Your task to perform on an android device: turn pop-ups off in chrome Image 0: 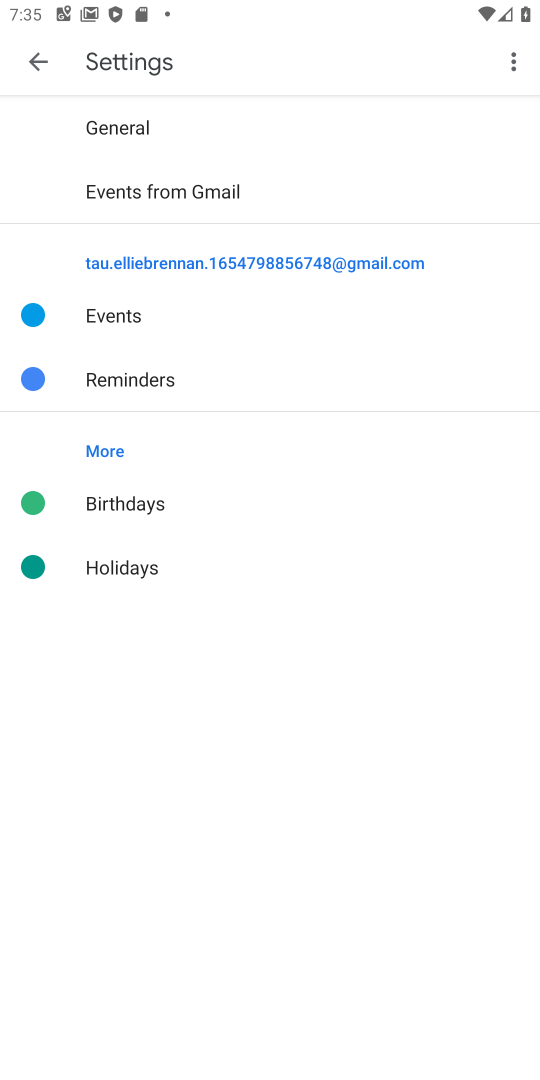
Step 0: press home button
Your task to perform on an android device: turn pop-ups off in chrome Image 1: 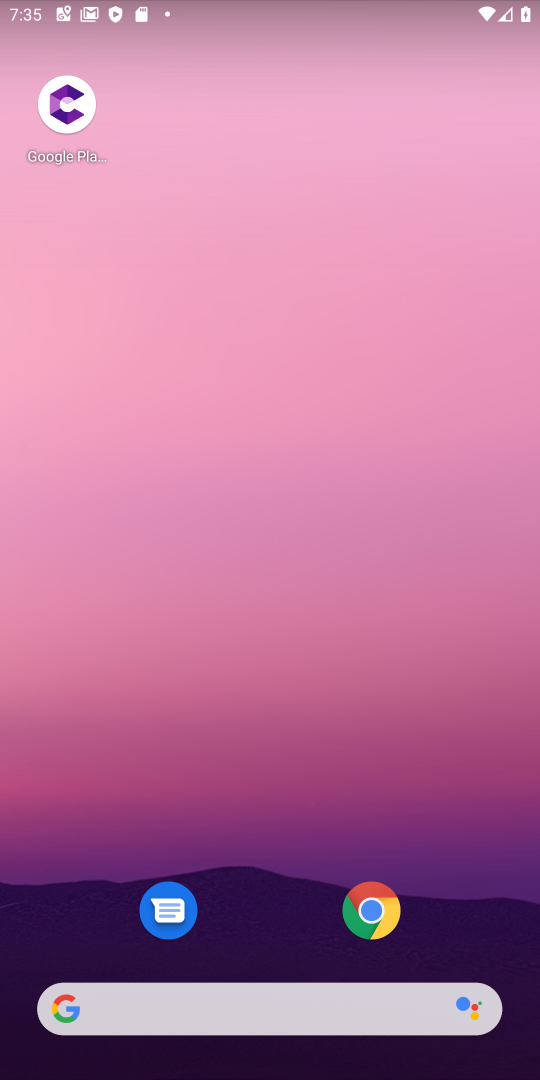
Step 1: drag from (471, 864) to (423, 99)
Your task to perform on an android device: turn pop-ups off in chrome Image 2: 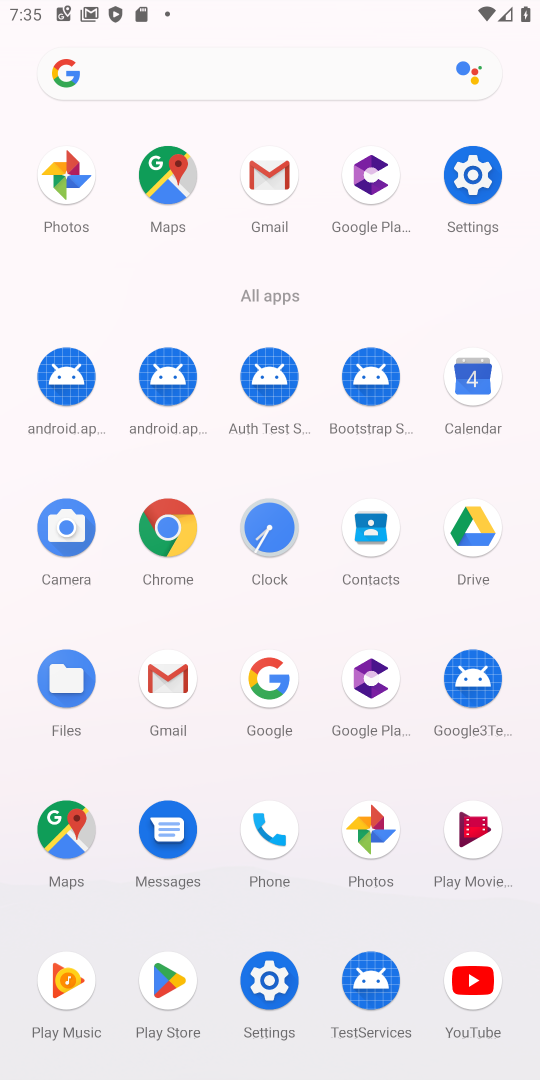
Step 2: click (164, 533)
Your task to perform on an android device: turn pop-ups off in chrome Image 3: 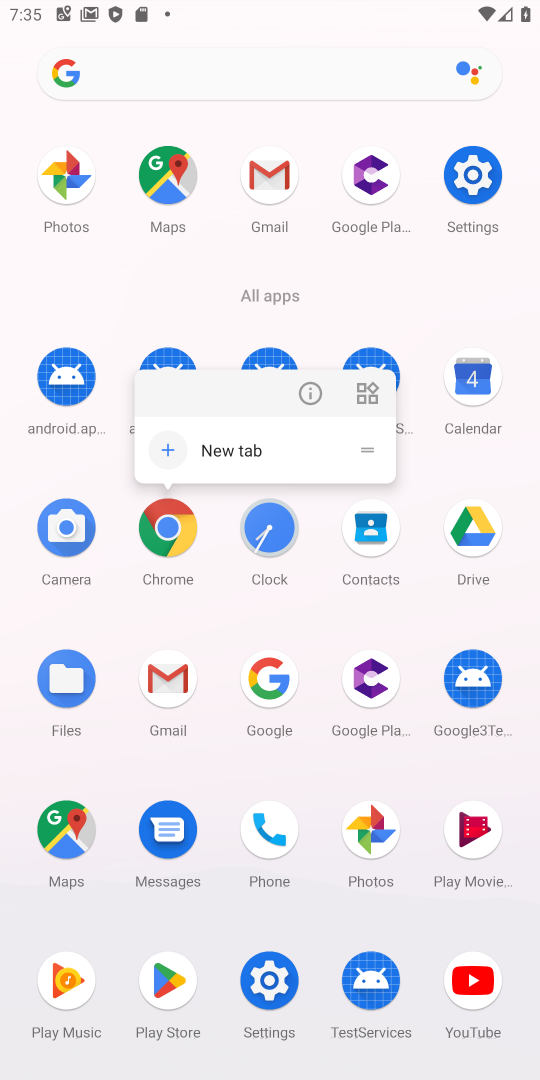
Step 3: click (166, 525)
Your task to perform on an android device: turn pop-ups off in chrome Image 4: 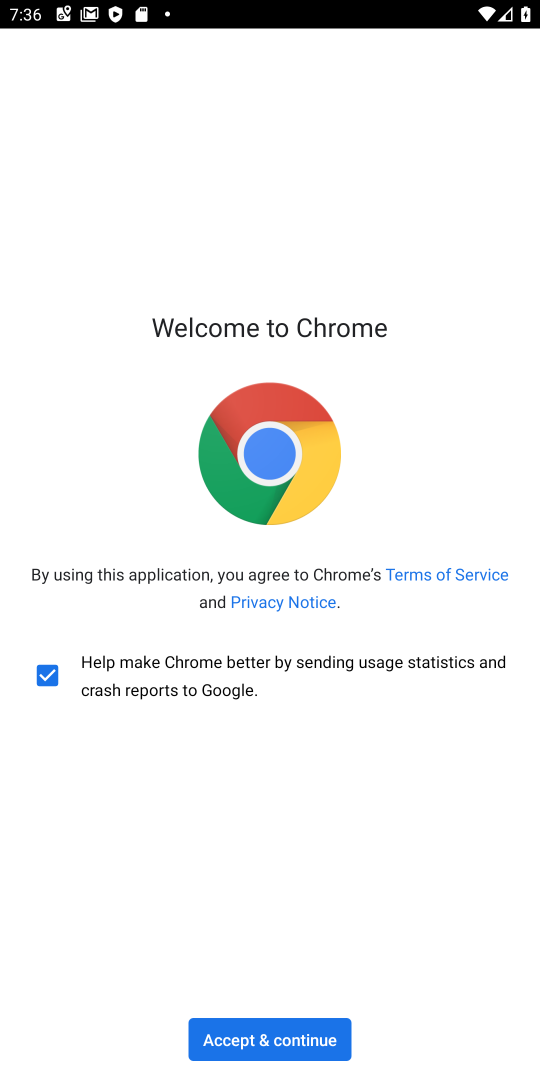
Step 4: click (290, 992)
Your task to perform on an android device: turn pop-ups off in chrome Image 5: 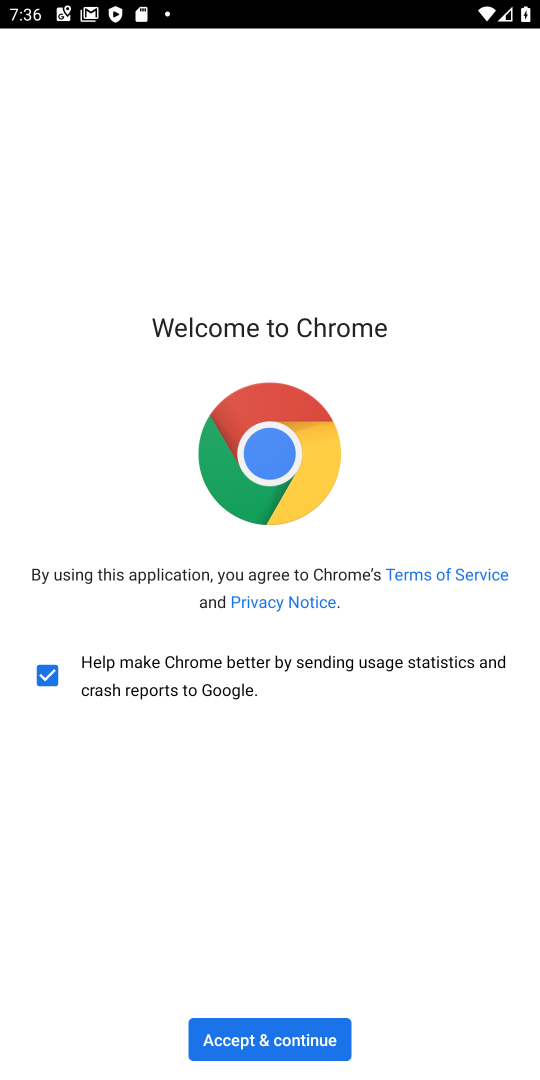
Step 5: click (310, 1026)
Your task to perform on an android device: turn pop-ups off in chrome Image 6: 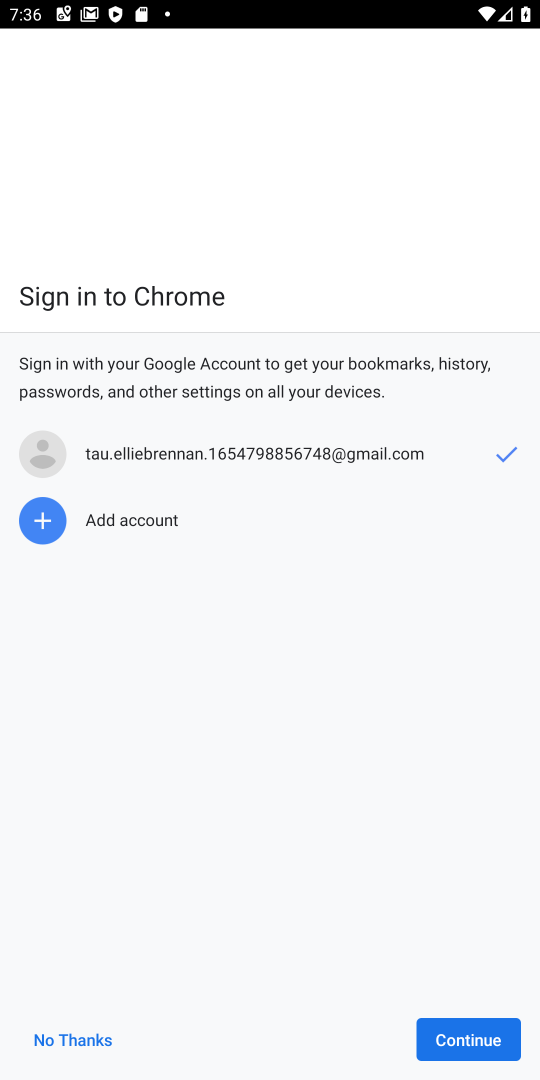
Step 6: click (476, 1029)
Your task to perform on an android device: turn pop-ups off in chrome Image 7: 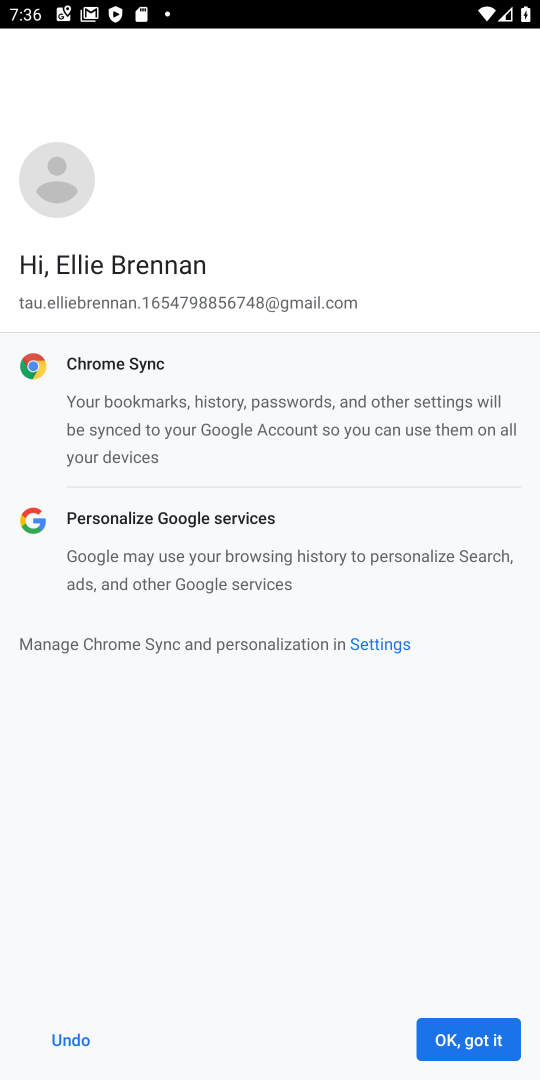
Step 7: click (496, 1028)
Your task to perform on an android device: turn pop-ups off in chrome Image 8: 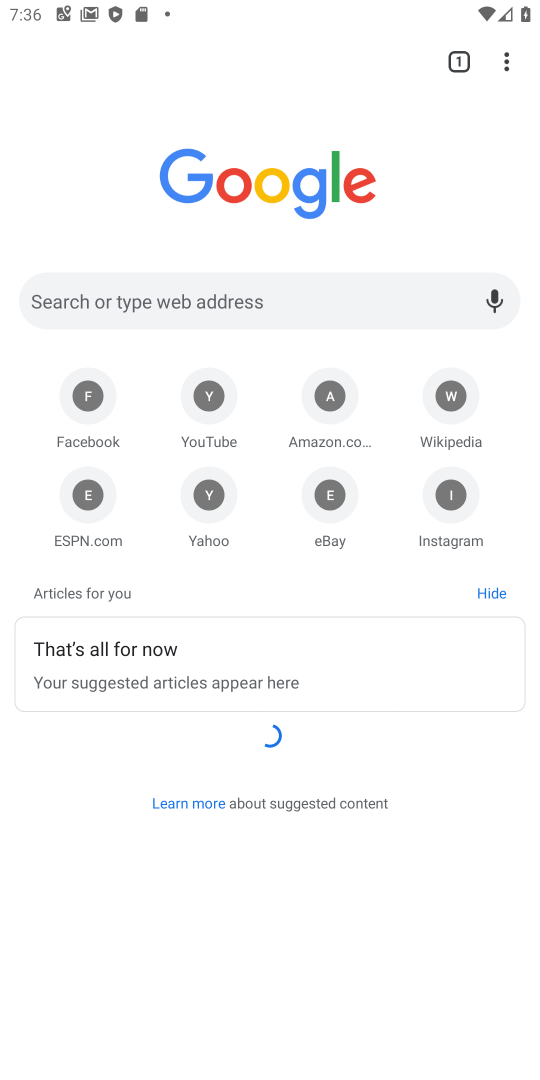
Step 8: drag from (509, 59) to (302, 528)
Your task to perform on an android device: turn pop-ups off in chrome Image 9: 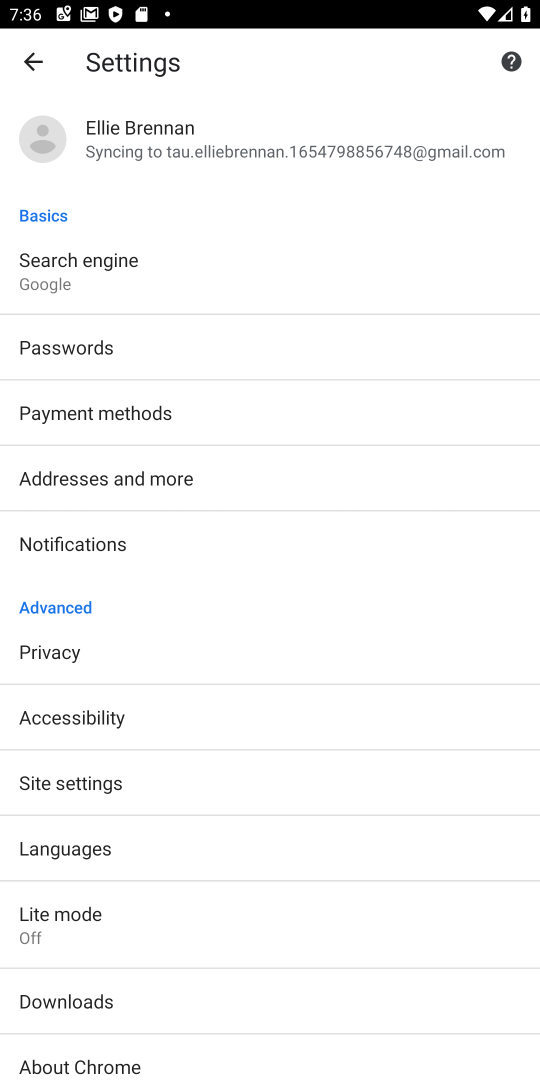
Step 9: click (73, 772)
Your task to perform on an android device: turn pop-ups off in chrome Image 10: 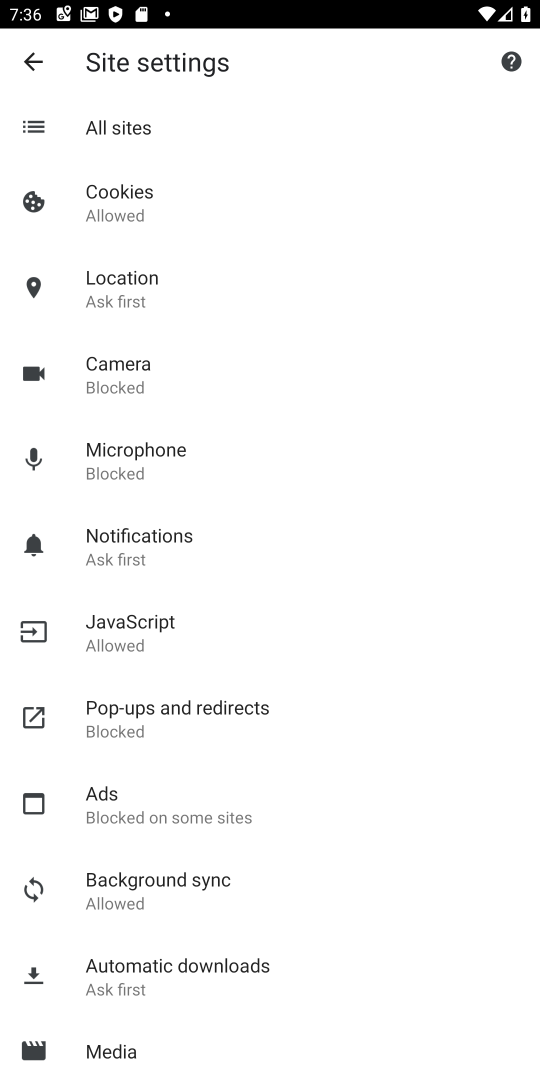
Step 10: click (118, 708)
Your task to perform on an android device: turn pop-ups off in chrome Image 11: 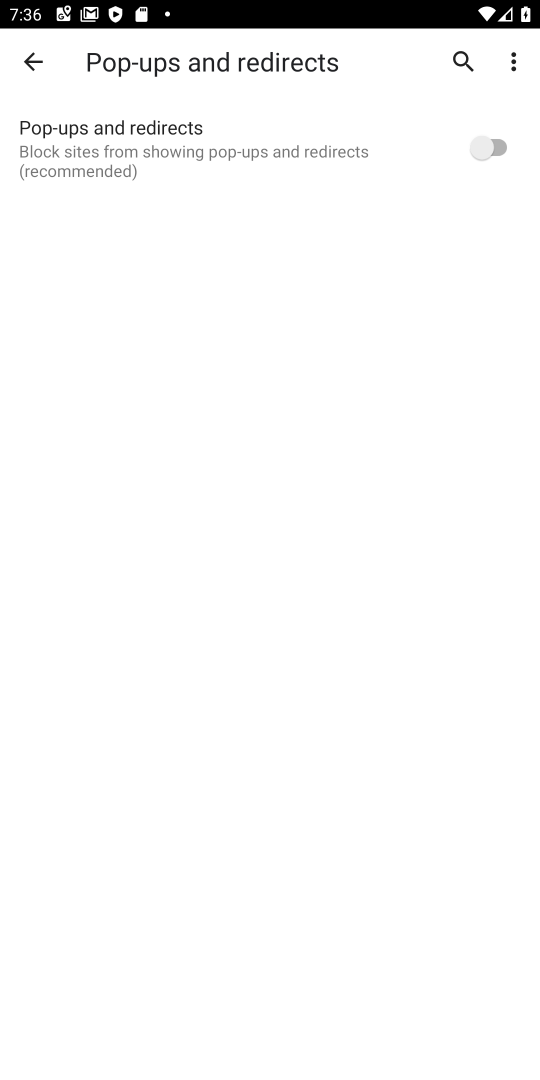
Step 11: task complete